Your task to perform on an android device: Add "asus rog" to the cart on amazon Image 0: 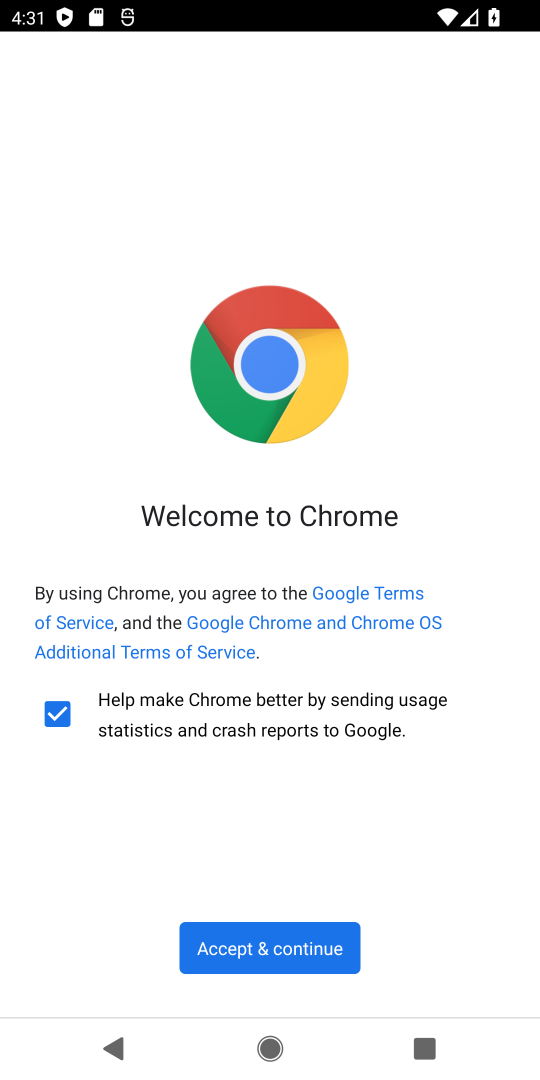
Step 0: click (253, 952)
Your task to perform on an android device: Add "asus rog" to the cart on amazon Image 1: 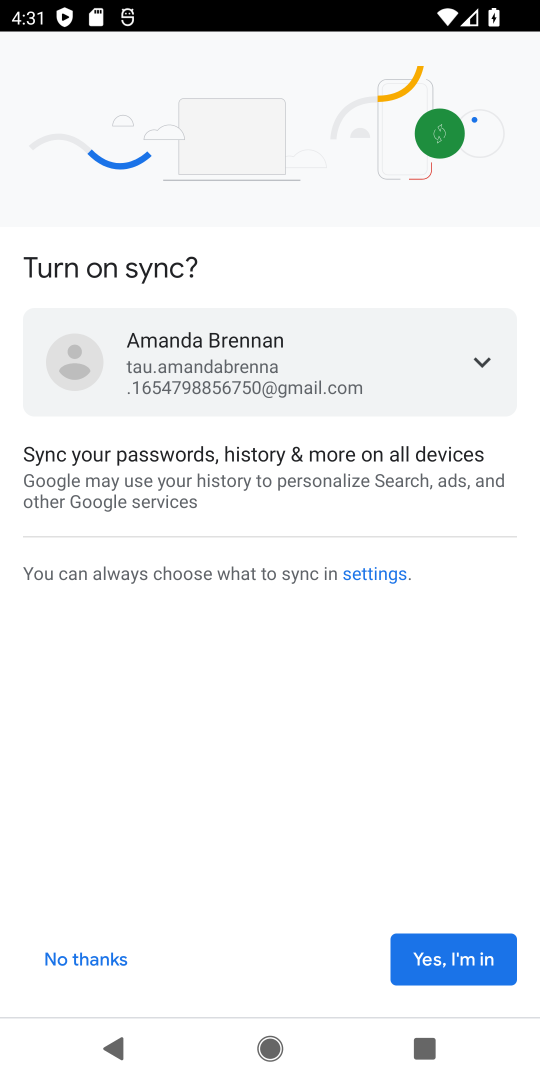
Step 1: click (472, 958)
Your task to perform on an android device: Add "asus rog" to the cart on amazon Image 2: 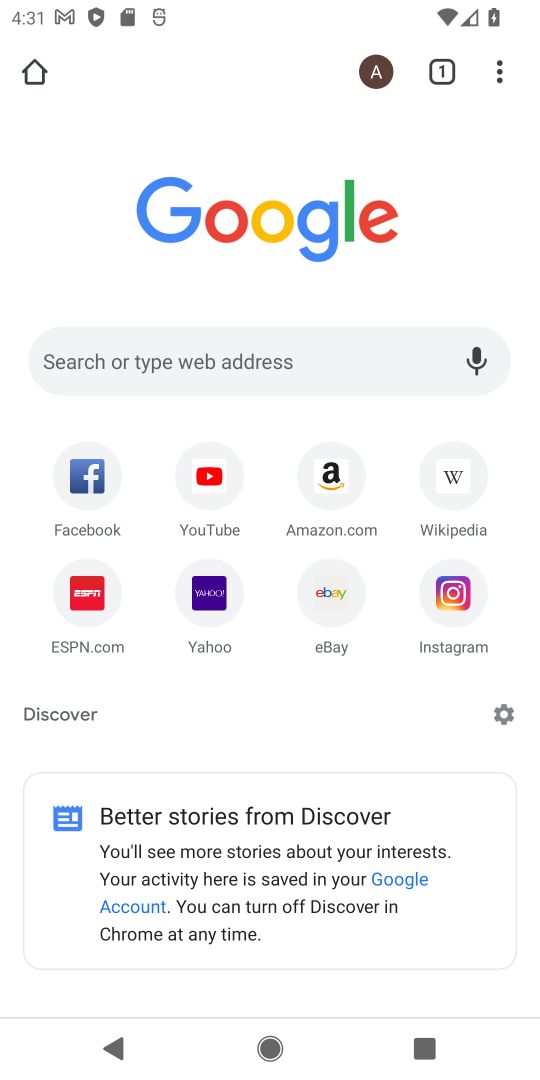
Step 2: click (222, 354)
Your task to perform on an android device: Add "asus rog" to the cart on amazon Image 3: 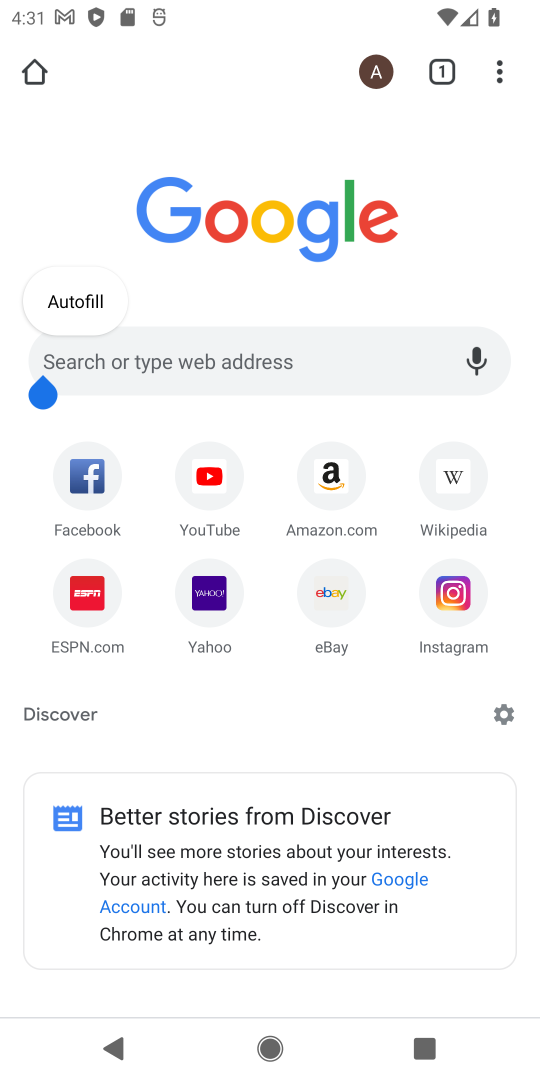
Step 3: click (151, 360)
Your task to perform on an android device: Add "asus rog" to the cart on amazon Image 4: 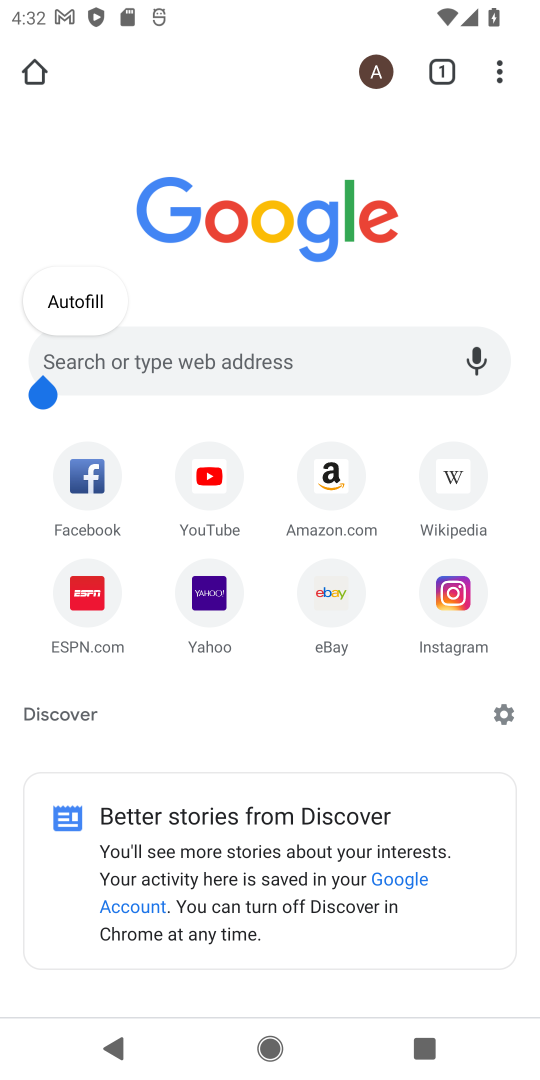
Step 4: click (98, 356)
Your task to perform on an android device: Add "asus rog" to the cart on amazon Image 5: 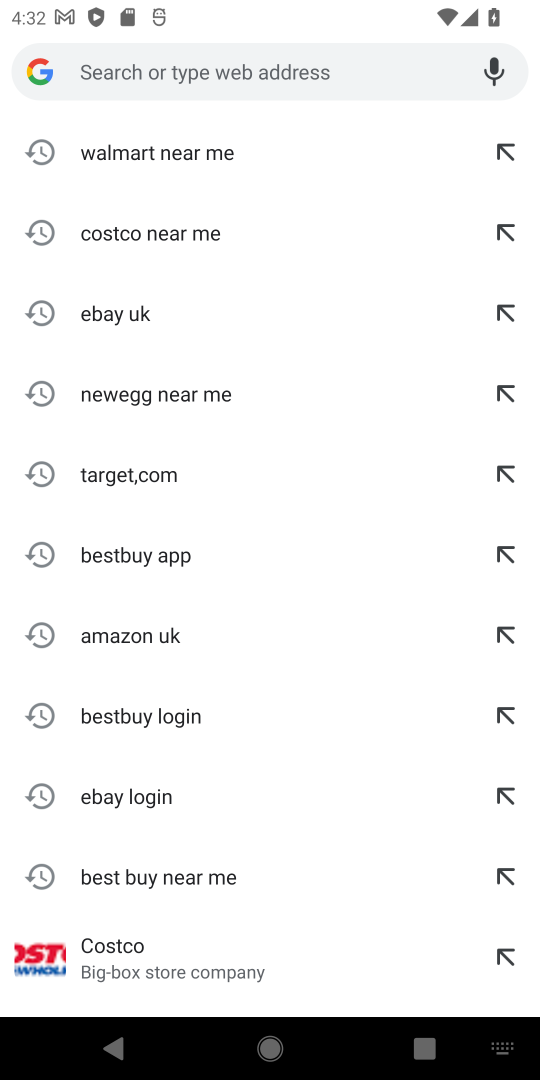
Step 5: type "amazon"
Your task to perform on an android device: Add "asus rog" to the cart on amazon Image 6: 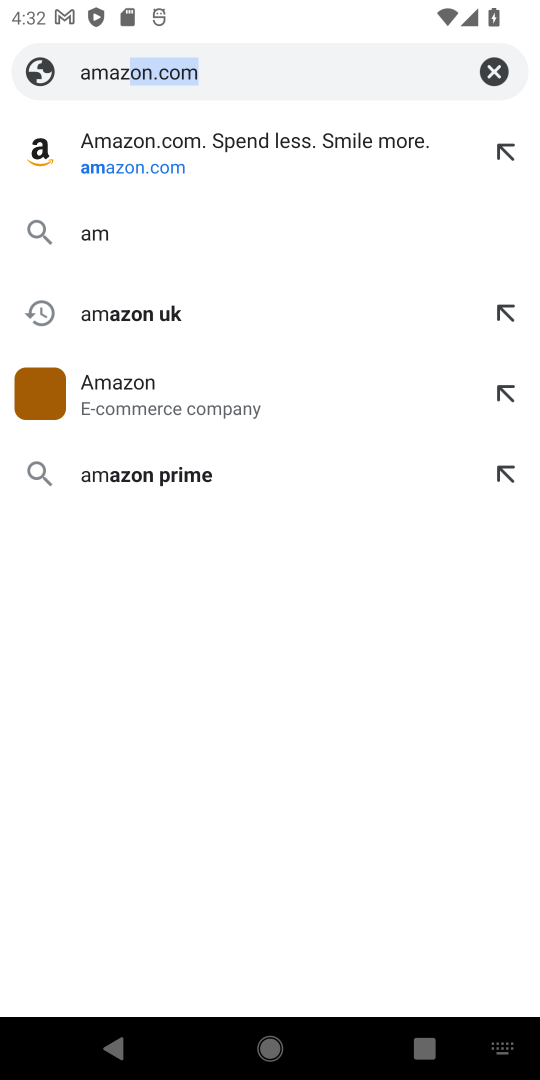
Step 6: press enter
Your task to perform on an android device: Add "asus rog" to the cart on amazon Image 7: 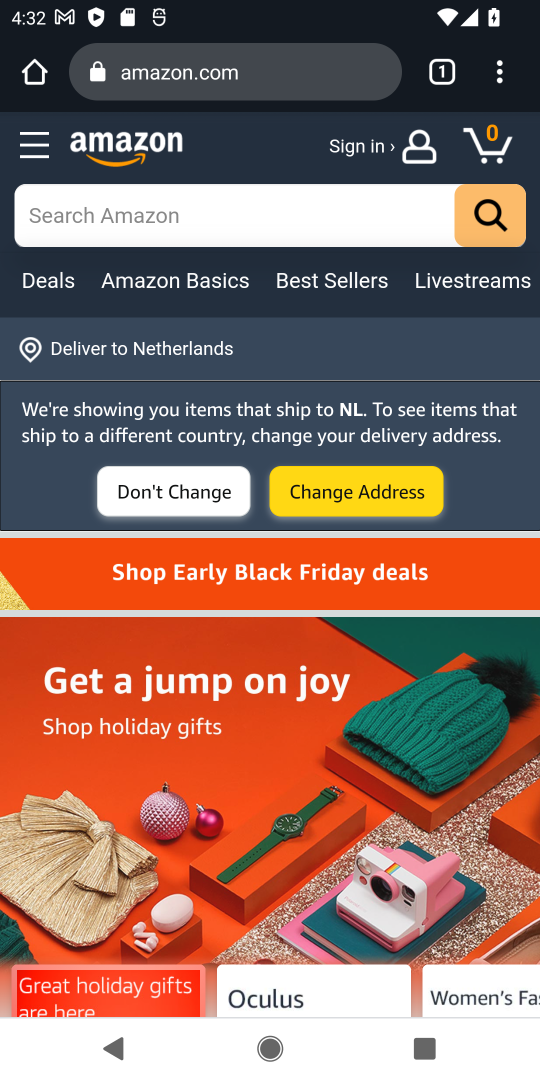
Step 7: click (173, 223)
Your task to perform on an android device: Add "asus rog" to the cart on amazon Image 8: 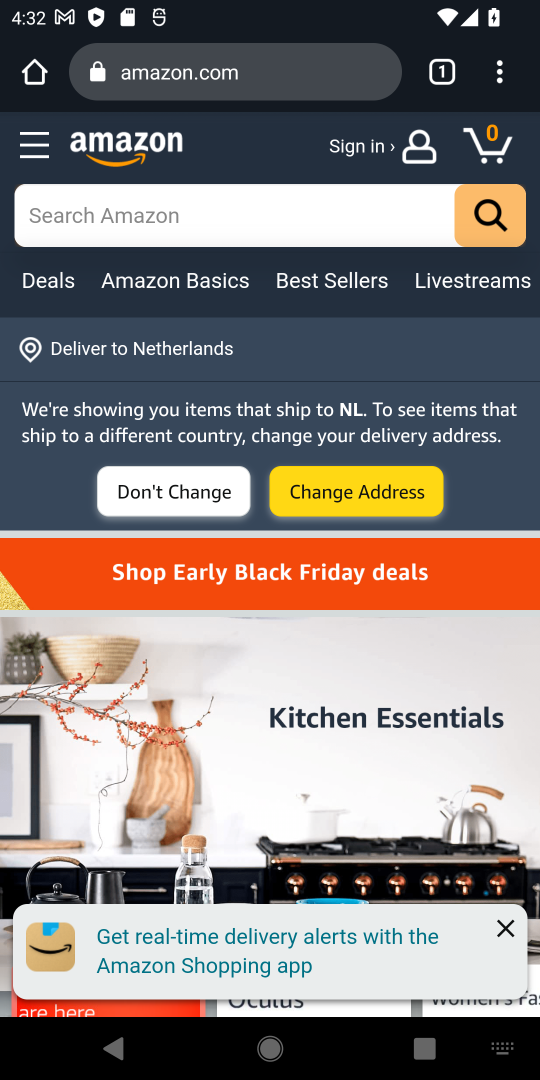
Step 8: type "asus rog"
Your task to perform on an android device: Add "asus rog" to the cart on amazon Image 9: 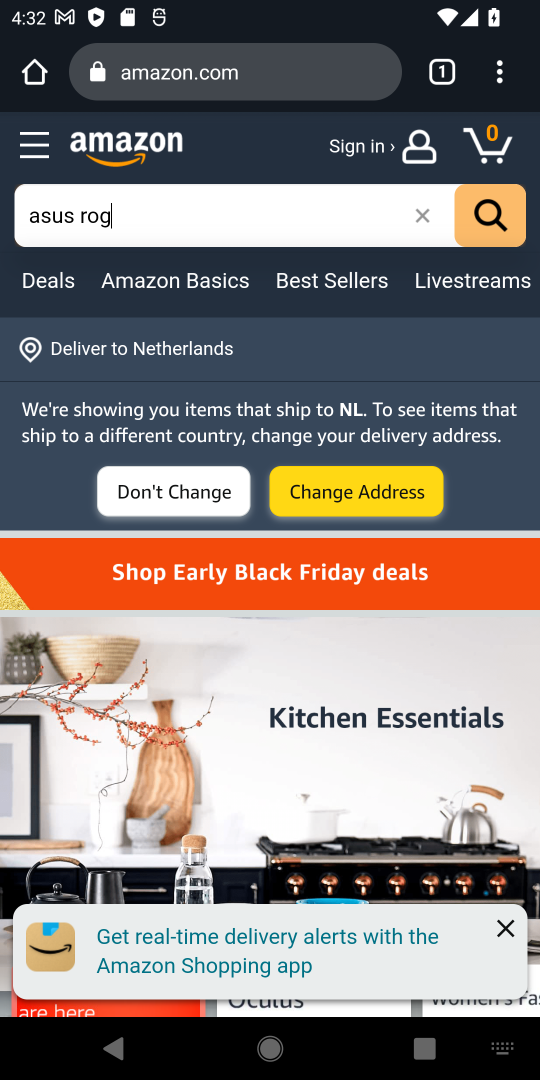
Step 9: press enter
Your task to perform on an android device: Add "asus rog" to the cart on amazon Image 10: 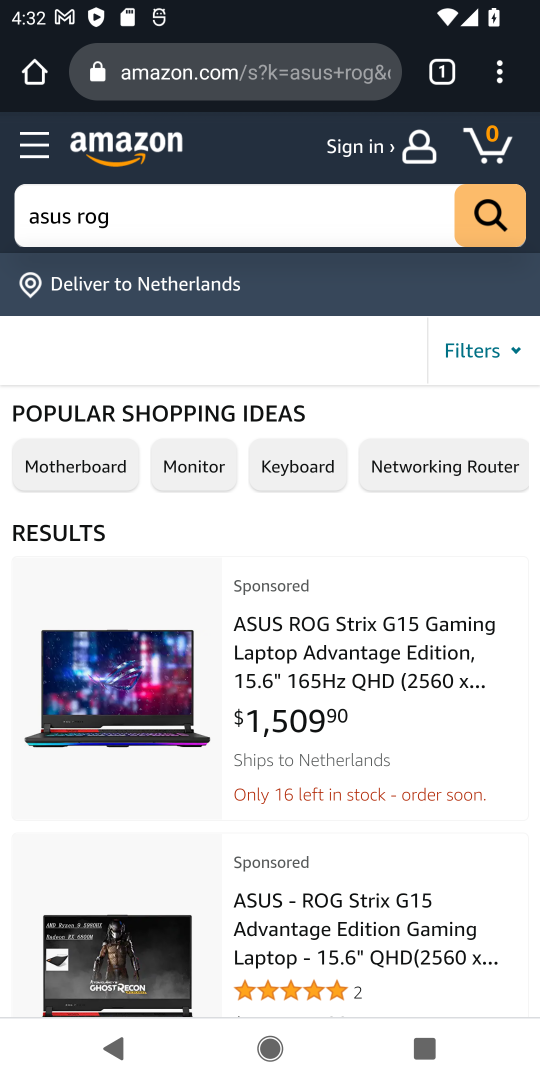
Step 10: click (363, 668)
Your task to perform on an android device: Add "asus rog" to the cart on amazon Image 11: 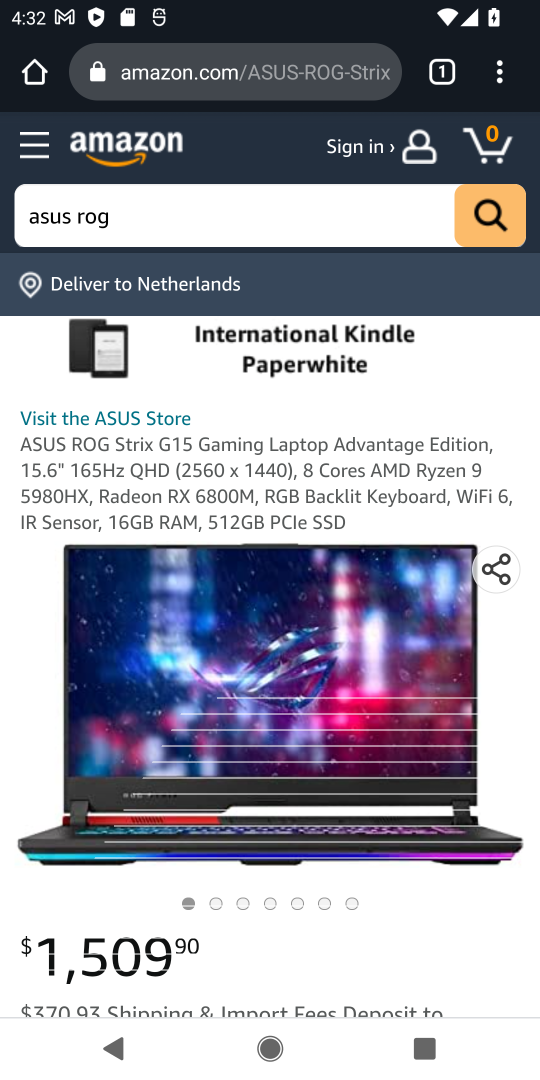
Step 11: drag from (339, 922) to (463, 323)
Your task to perform on an android device: Add "asus rog" to the cart on amazon Image 12: 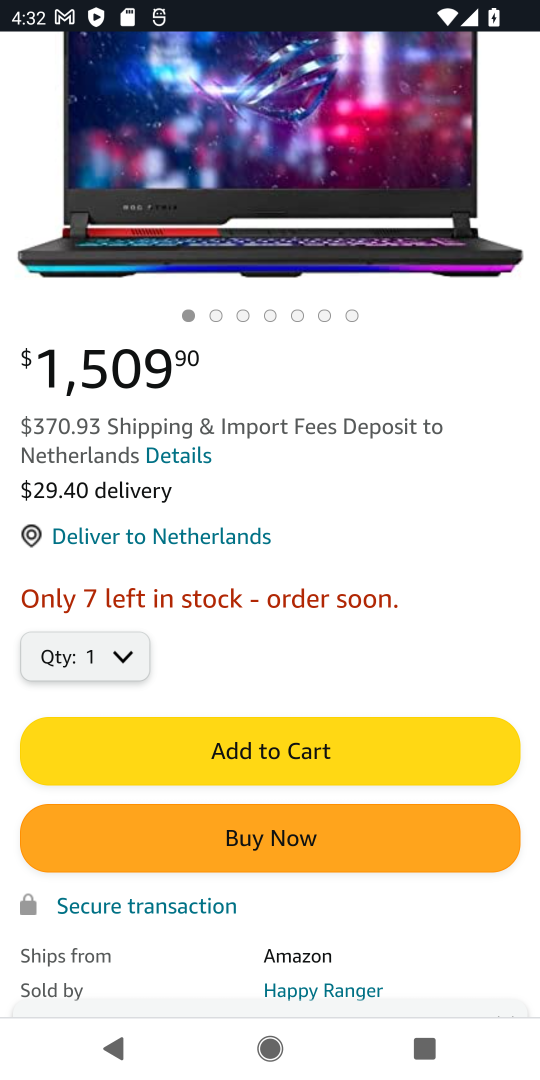
Step 12: click (291, 789)
Your task to perform on an android device: Add "asus rog" to the cart on amazon Image 13: 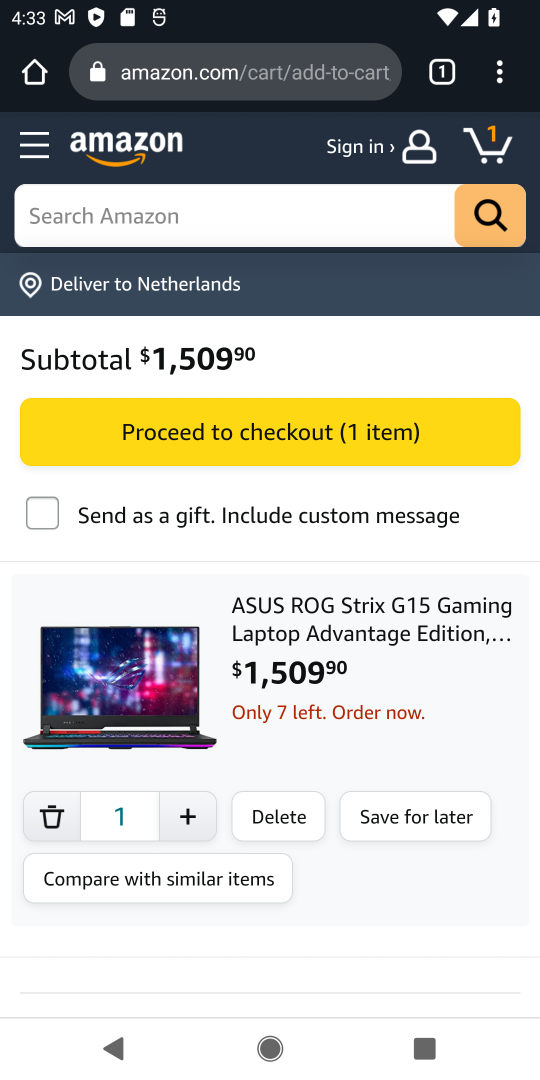
Step 13: task complete